Your task to perform on an android device: turn on notifications settings in the gmail app Image 0: 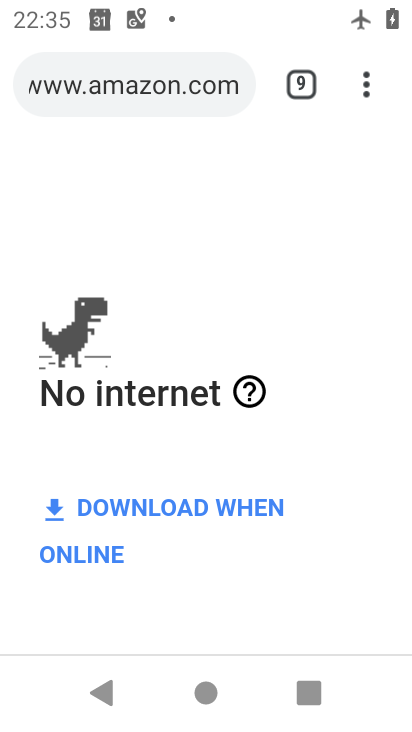
Step 0: press home button
Your task to perform on an android device: turn on notifications settings in the gmail app Image 1: 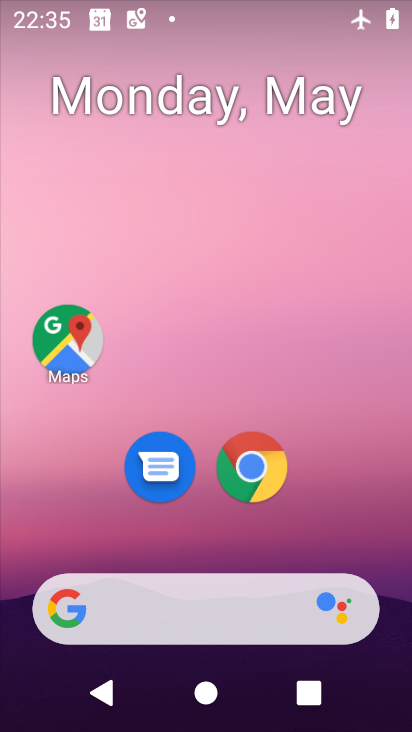
Step 1: drag from (365, 561) to (348, 255)
Your task to perform on an android device: turn on notifications settings in the gmail app Image 2: 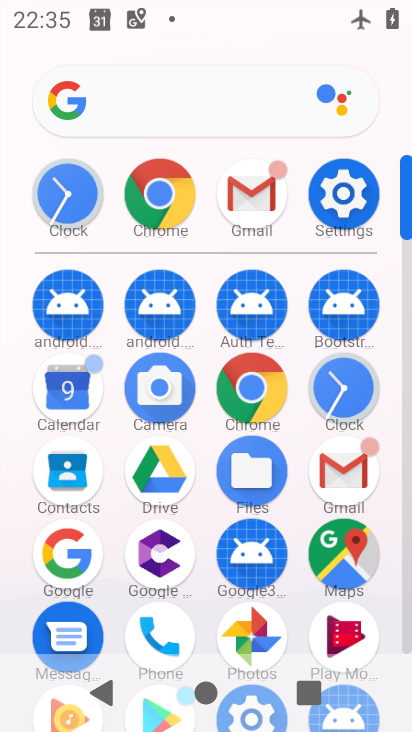
Step 2: click (240, 185)
Your task to perform on an android device: turn on notifications settings in the gmail app Image 3: 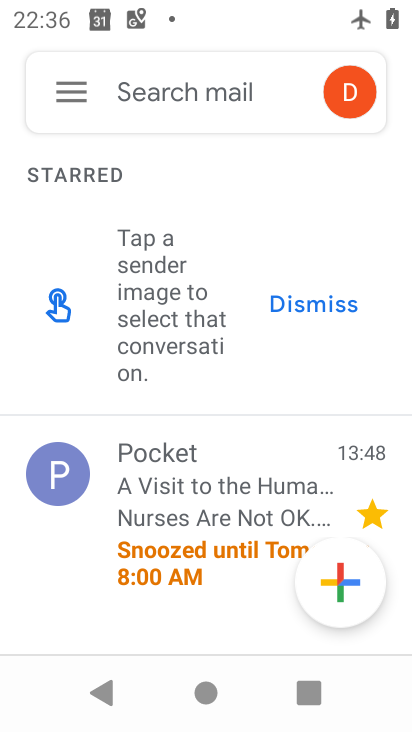
Step 3: click (77, 92)
Your task to perform on an android device: turn on notifications settings in the gmail app Image 4: 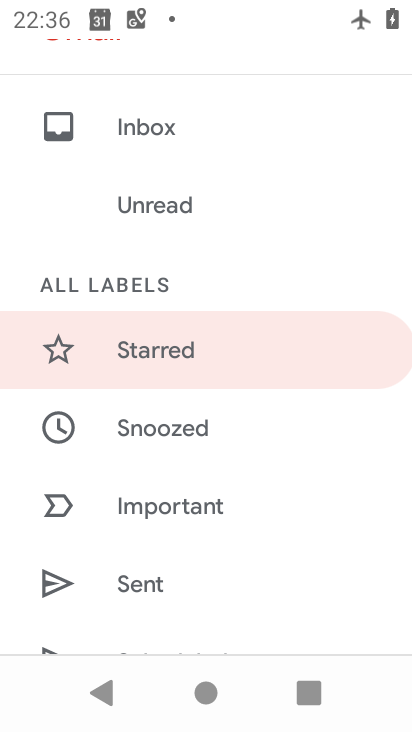
Step 4: drag from (199, 615) to (300, 162)
Your task to perform on an android device: turn on notifications settings in the gmail app Image 5: 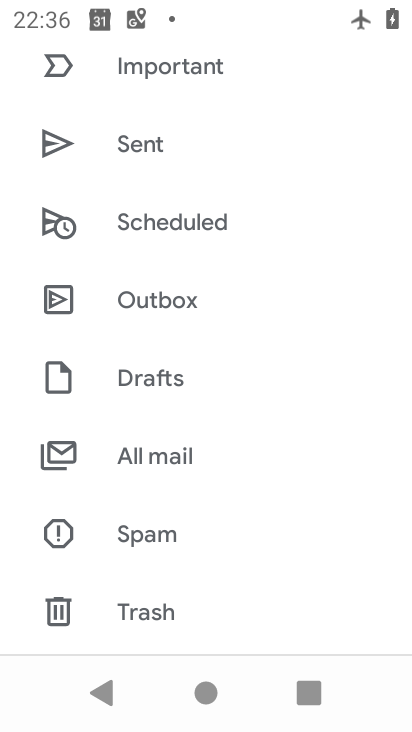
Step 5: drag from (162, 617) to (247, 119)
Your task to perform on an android device: turn on notifications settings in the gmail app Image 6: 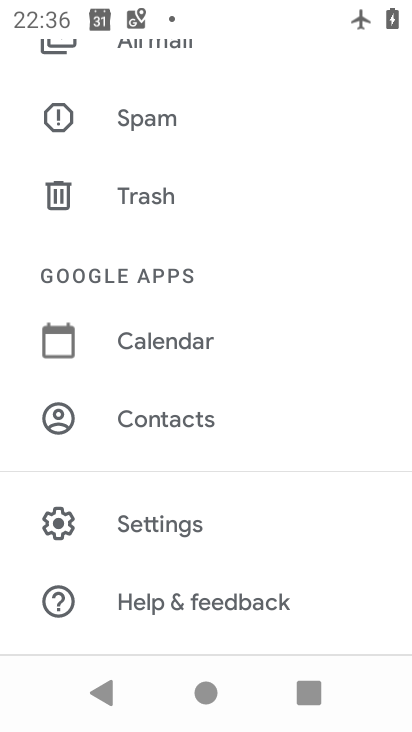
Step 6: click (145, 524)
Your task to perform on an android device: turn on notifications settings in the gmail app Image 7: 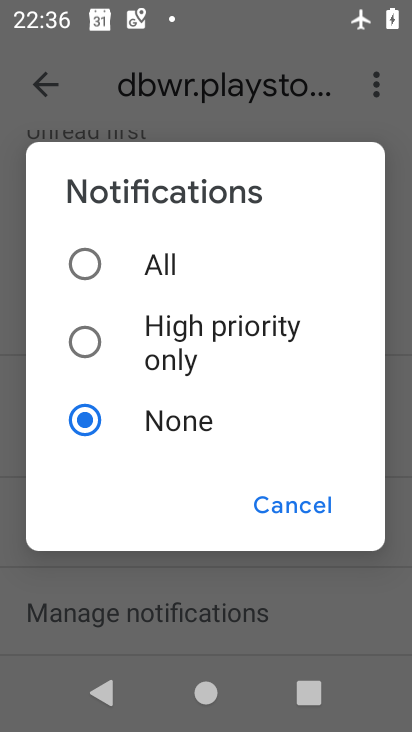
Step 7: click (152, 268)
Your task to perform on an android device: turn on notifications settings in the gmail app Image 8: 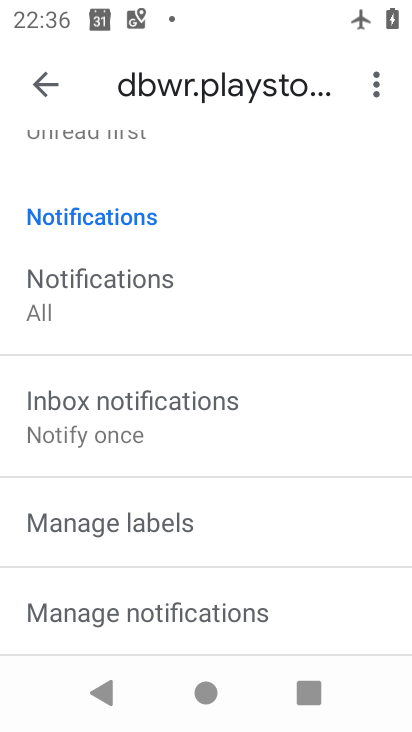
Step 8: task complete